Your task to perform on an android device: Is it going to rain tomorrow? Image 0: 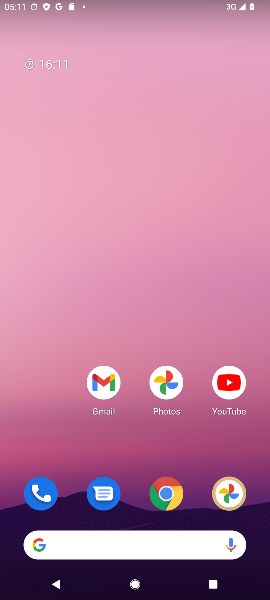
Step 0: press home button
Your task to perform on an android device: Is it going to rain tomorrow? Image 1: 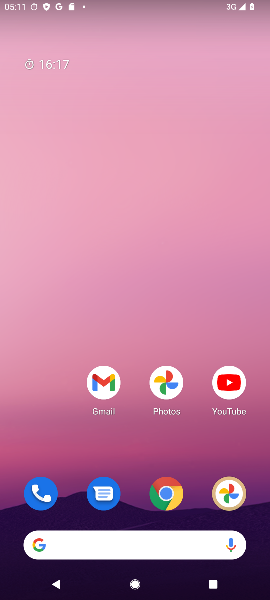
Step 1: click (136, 542)
Your task to perform on an android device: Is it going to rain tomorrow? Image 2: 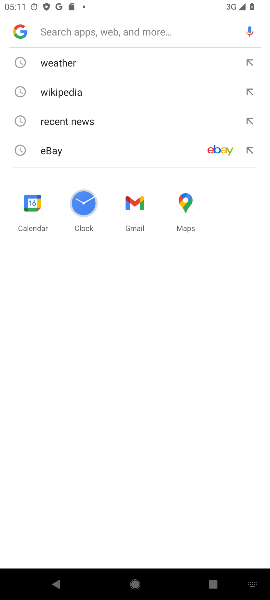
Step 2: click (61, 64)
Your task to perform on an android device: Is it going to rain tomorrow? Image 3: 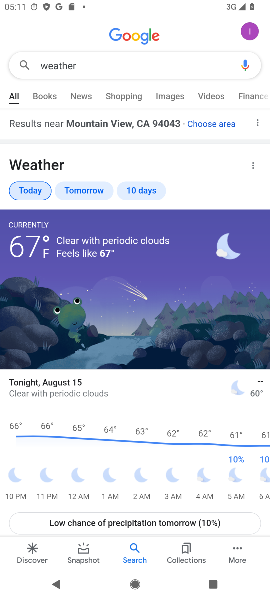
Step 3: click (82, 193)
Your task to perform on an android device: Is it going to rain tomorrow? Image 4: 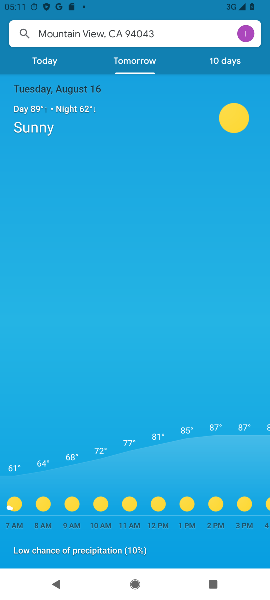
Step 4: task complete